Your task to perform on an android device: open chrome and create a bookmark for the current page Image 0: 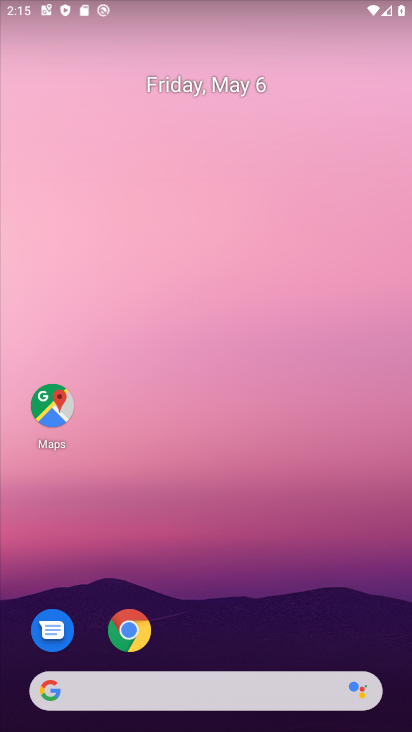
Step 0: click (130, 628)
Your task to perform on an android device: open chrome and create a bookmark for the current page Image 1: 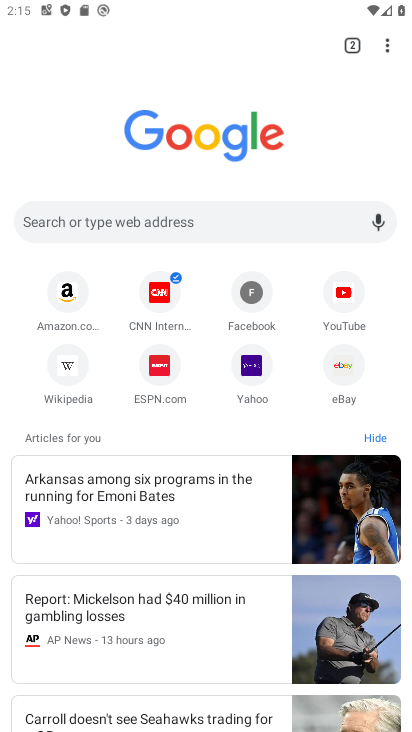
Step 1: task complete